Your task to perform on an android device: Add "macbook pro 15 inch" to the cart on bestbuy.com Image 0: 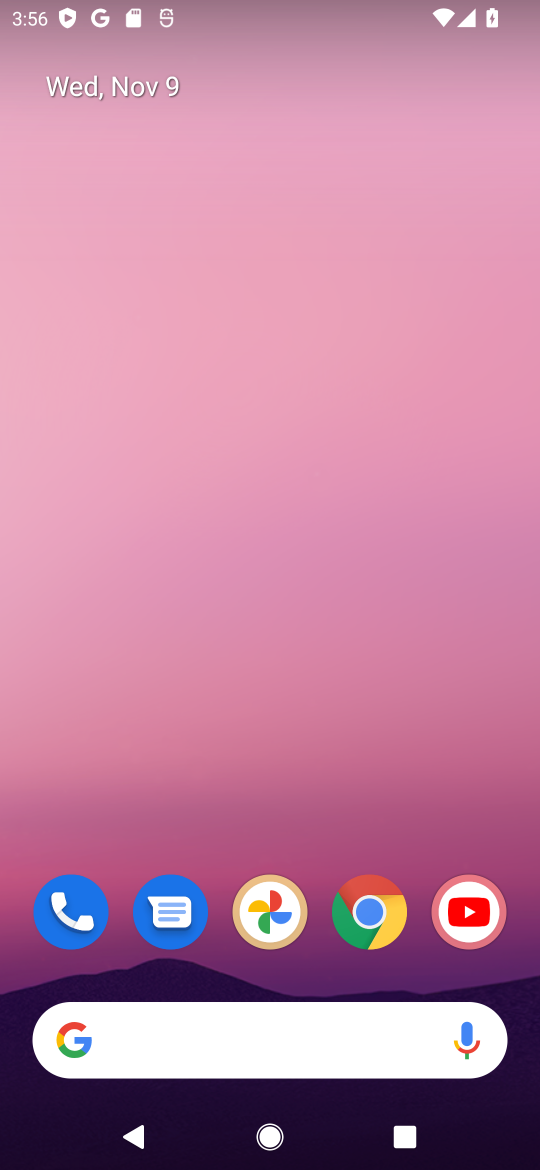
Step 0: click (369, 914)
Your task to perform on an android device: Add "macbook pro 15 inch" to the cart on bestbuy.com Image 1: 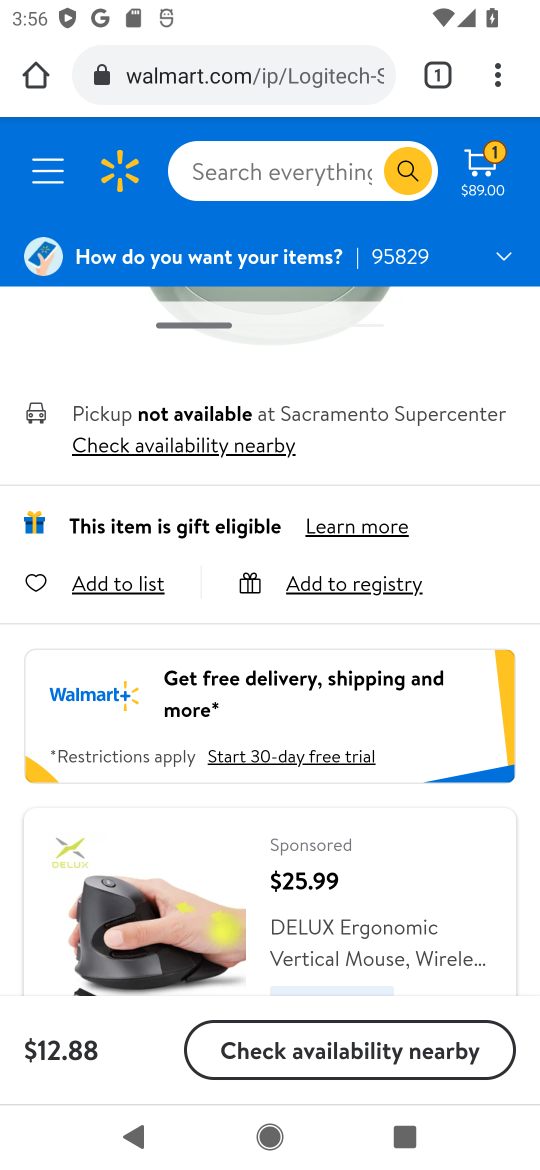
Step 1: click (222, 77)
Your task to perform on an android device: Add "macbook pro 15 inch" to the cart on bestbuy.com Image 2: 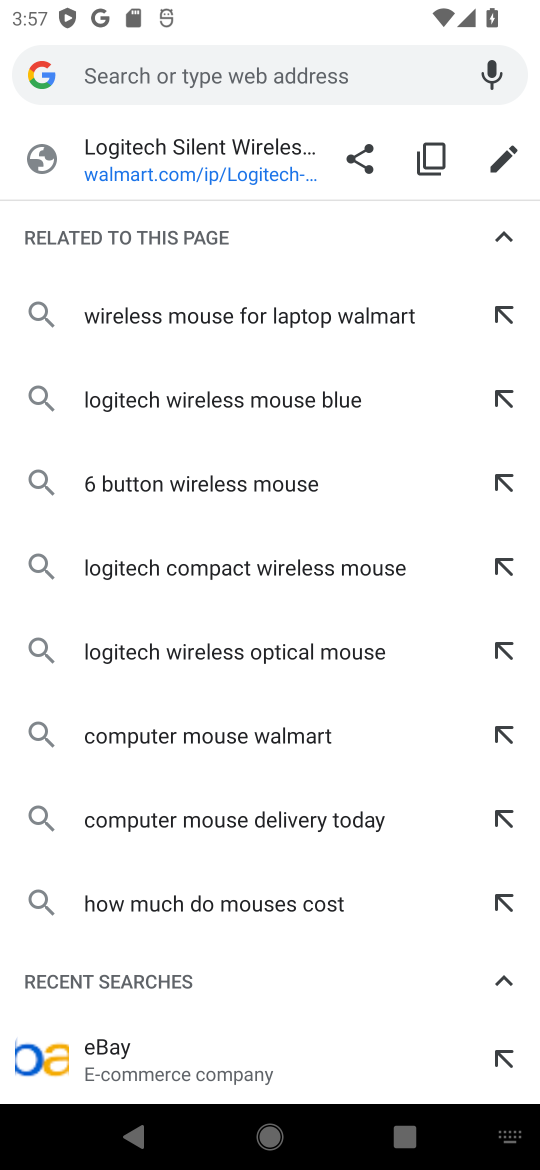
Step 2: type "bestbuy.com"
Your task to perform on an android device: Add "macbook pro 15 inch" to the cart on bestbuy.com Image 3: 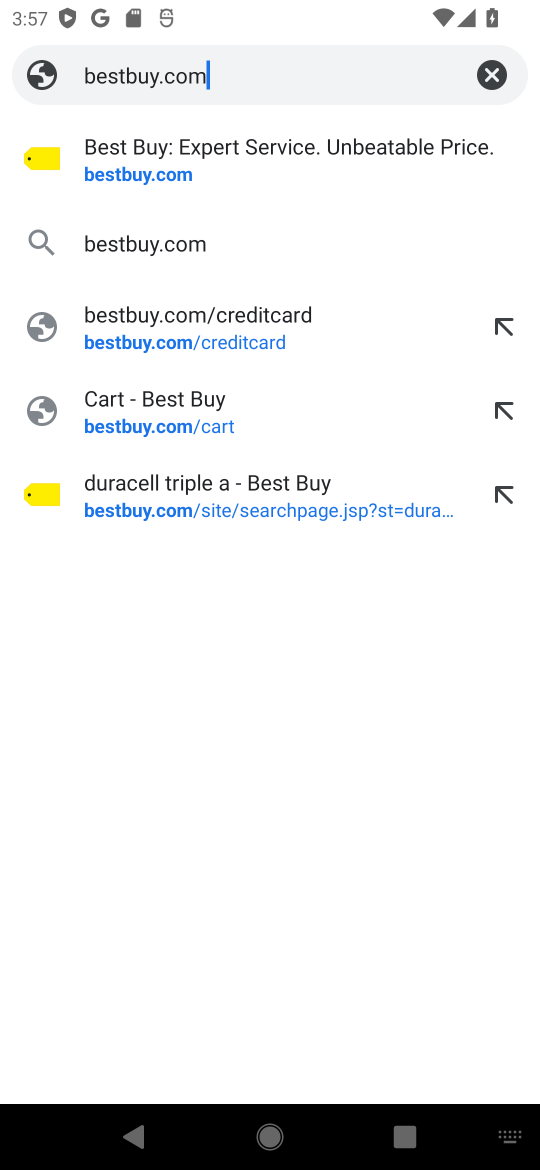
Step 3: click (190, 251)
Your task to perform on an android device: Add "macbook pro 15 inch" to the cart on bestbuy.com Image 4: 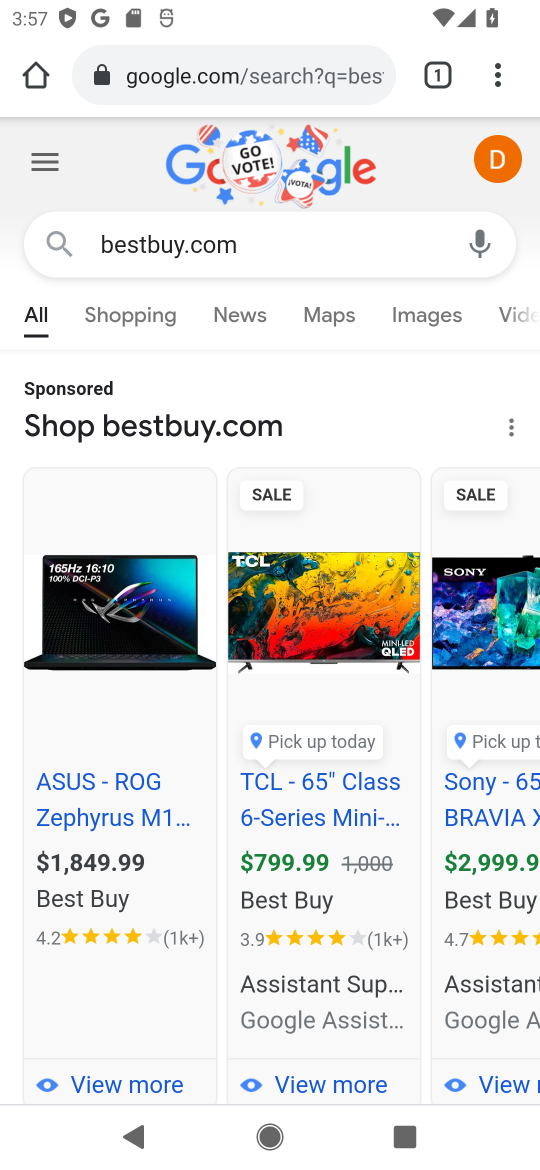
Step 4: drag from (158, 990) to (185, 603)
Your task to perform on an android device: Add "macbook pro 15 inch" to the cart on bestbuy.com Image 5: 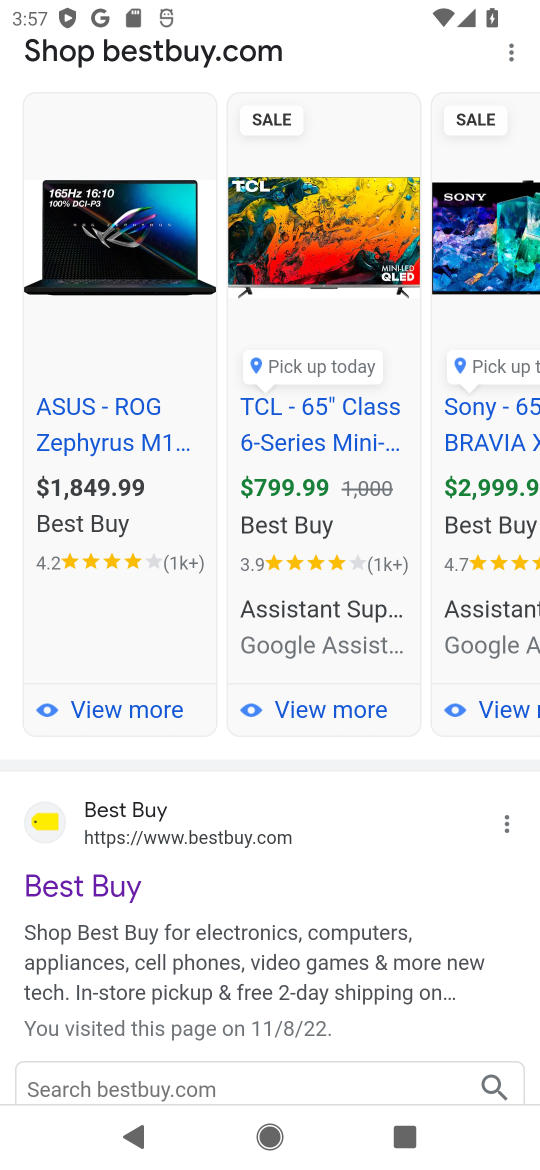
Step 5: click (147, 870)
Your task to perform on an android device: Add "macbook pro 15 inch" to the cart on bestbuy.com Image 6: 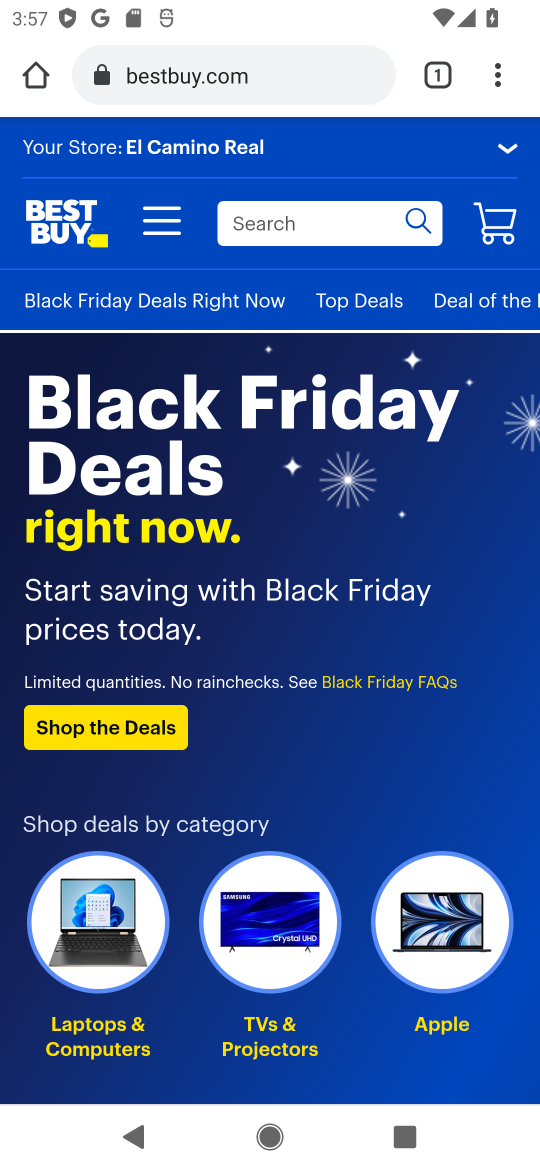
Step 6: click (293, 229)
Your task to perform on an android device: Add "macbook pro 15 inch" to the cart on bestbuy.com Image 7: 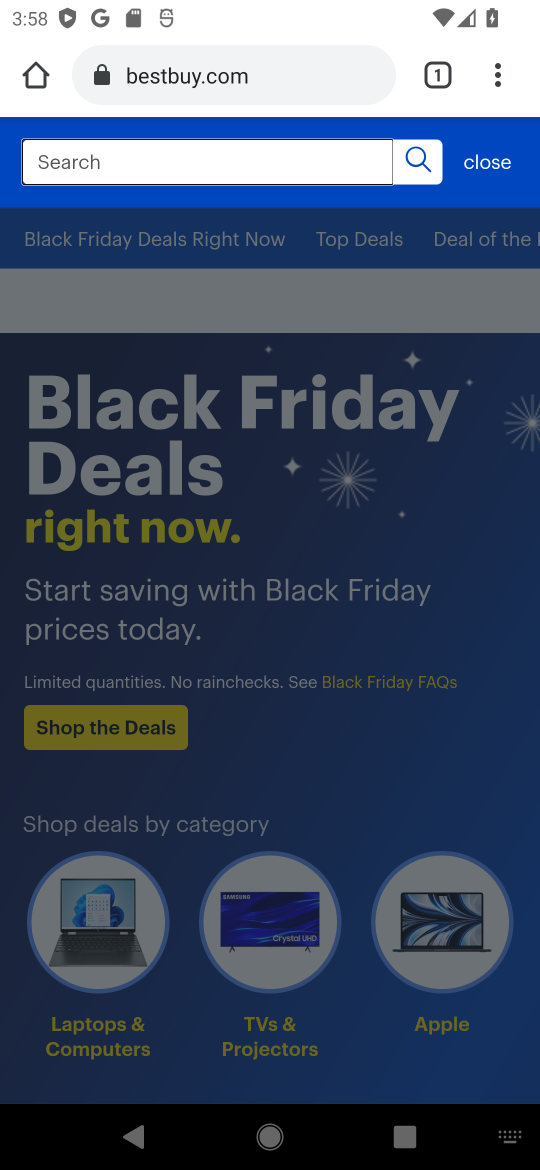
Step 7: type "macbook pro 15 inch"
Your task to perform on an android device: Add "macbook pro 15 inch" to the cart on bestbuy.com Image 8: 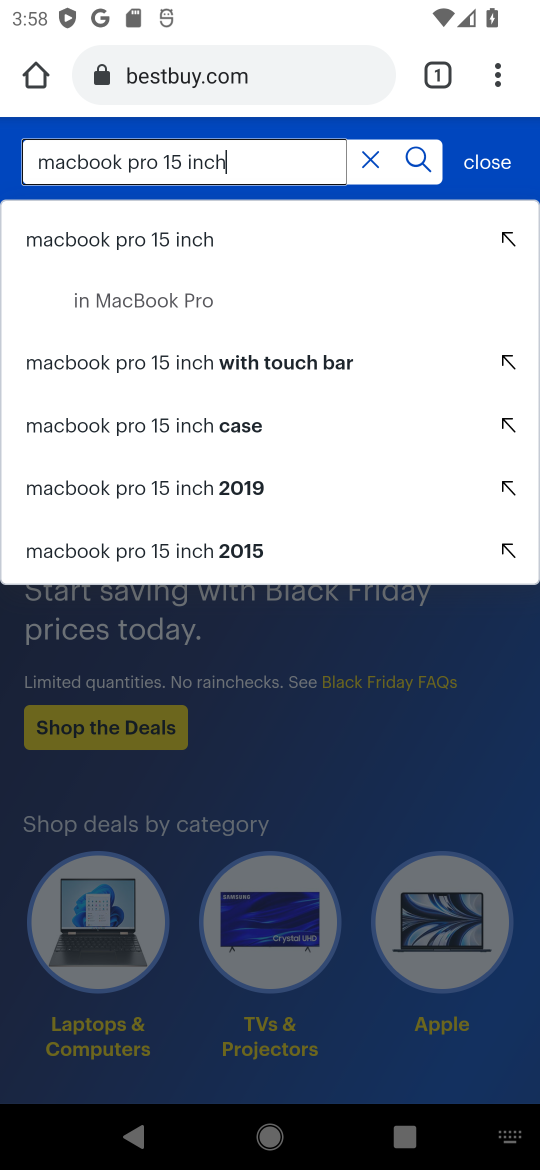
Step 8: click (148, 240)
Your task to perform on an android device: Add "macbook pro 15 inch" to the cart on bestbuy.com Image 9: 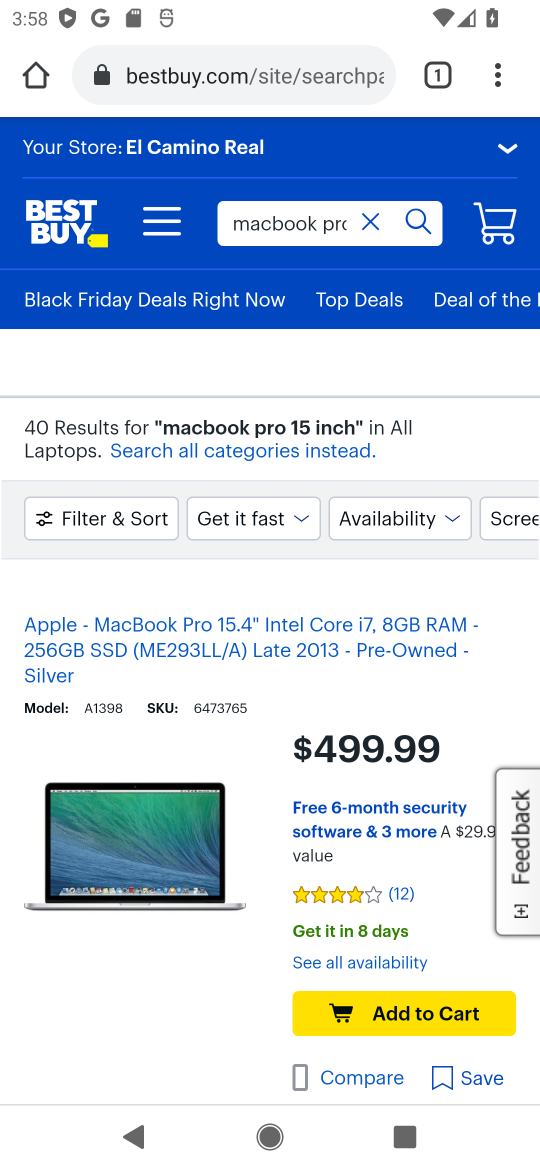
Step 9: click (401, 1014)
Your task to perform on an android device: Add "macbook pro 15 inch" to the cart on bestbuy.com Image 10: 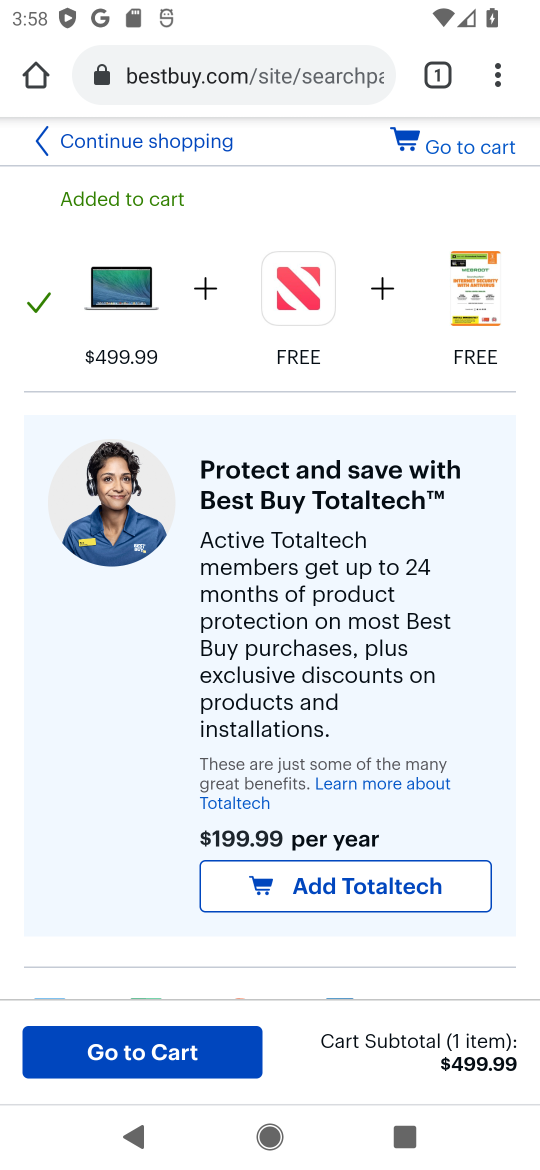
Step 10: click (137, 1055)
Your task to perform on an android device: Add "macbook pro 15 inch" to the cart on bestbuy.com Image 11: 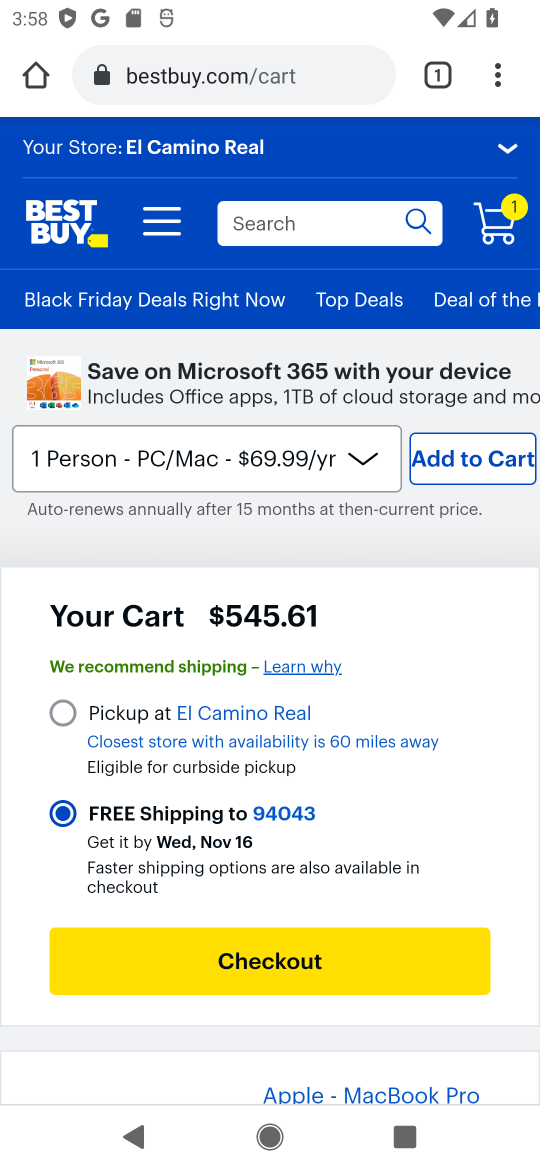
Step 11: task complete